Your task to perform on an android device: toggle notifications settings in the gmail app Image 0: 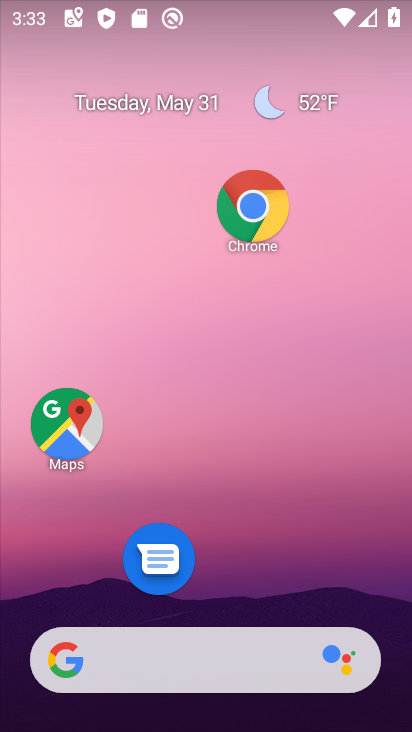
Step 0: drag from (219, 563) to (205, 140)
Your task to perform on an android device: toggle notifications settings in the gmail app Image 1: 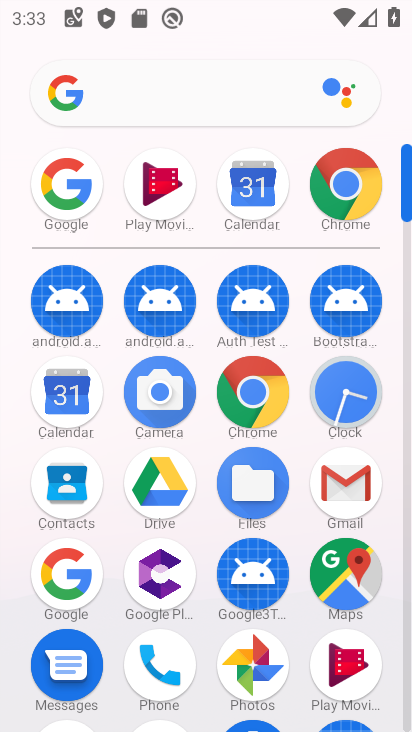
Step 1: click (343, 490)
Your task to perform on an android device: toggle notifications settings in the gmail app Image 2: 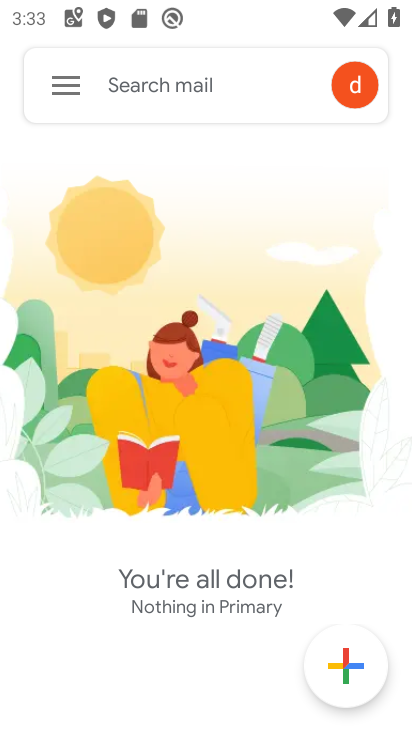
Step 2: click (56, 88)
Your task to perform on an android device: toggle notifications settings in the gmail app Image 3: 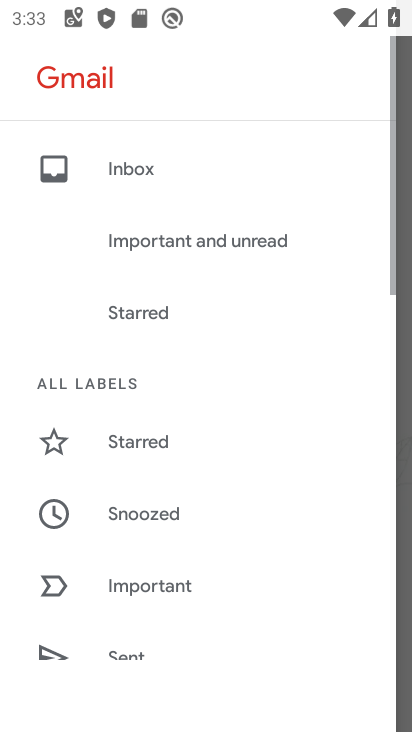
Step 3: drag from (156, 677) to (199, 260)
Your task to perform on an android device: toggle notifications settings in the gmail app Image 4: 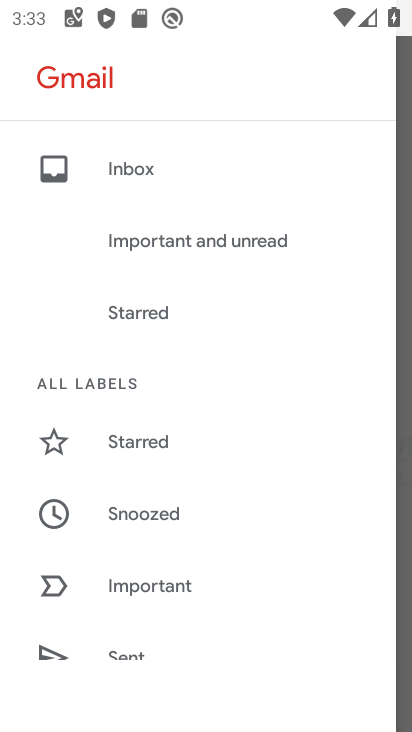
Step 4: drag from (228, 587) to (238, 232)
Your task to perform on an android device: toggle notifications settings in the gmail app Image 5: 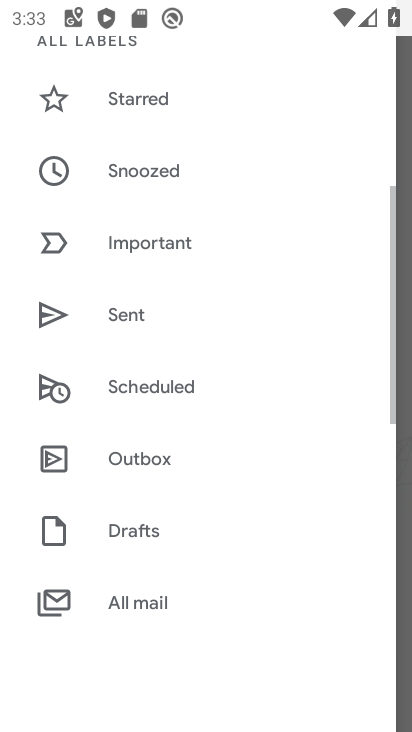
Step 5: drag from (210, 554) to (223, 249)
Your task to perform on an android device: toggle notifications settings in the gmail app Image 6: 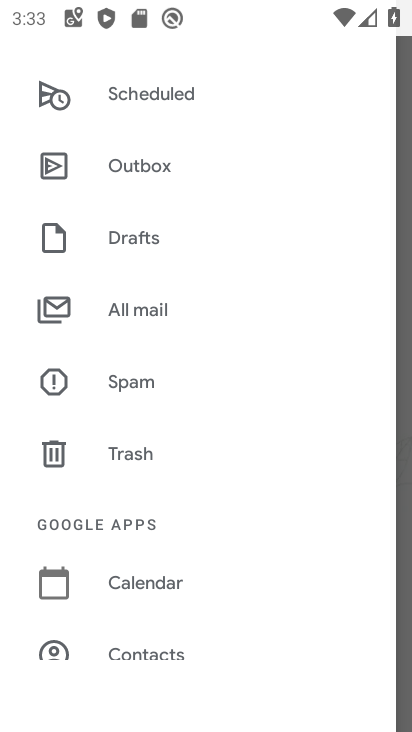
Step 6: drag from (184, 587) to (182, 210)
Your task to perform on an android device: toggle notifications settings in the gmail app Image 7: 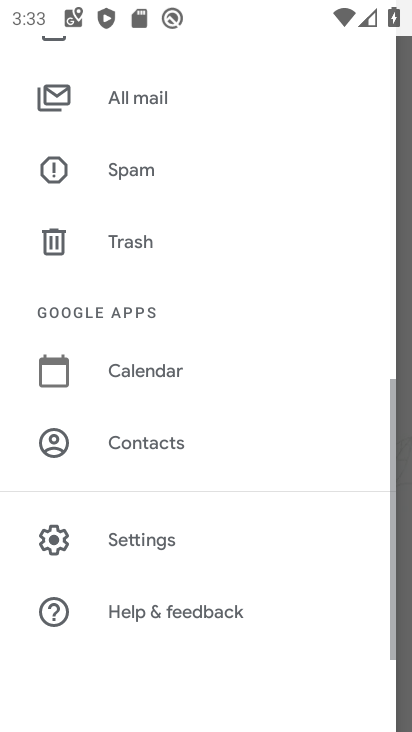
Step 7: click (150, 529)
Your task to perform on an android device: toggle notifications settings in the gmail app Image 8: 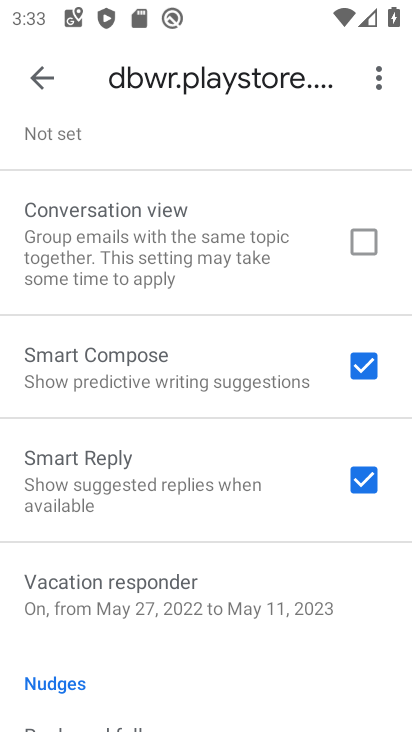
Step 8: drag from (159, 587) to (160, 254)
Your task to perform on an android device: toggle notifications settings in the gmail app Image 9: 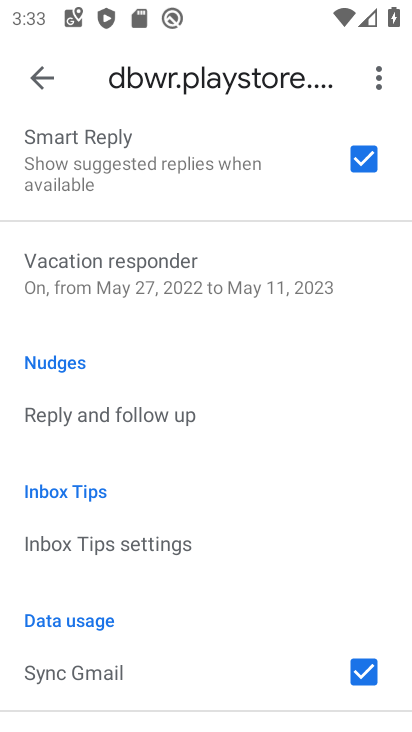
Step 9: drag from (137, 476) to (124, 627)
Your task to perform on an android device: toggle notifications settings in the gmail app Image 10: 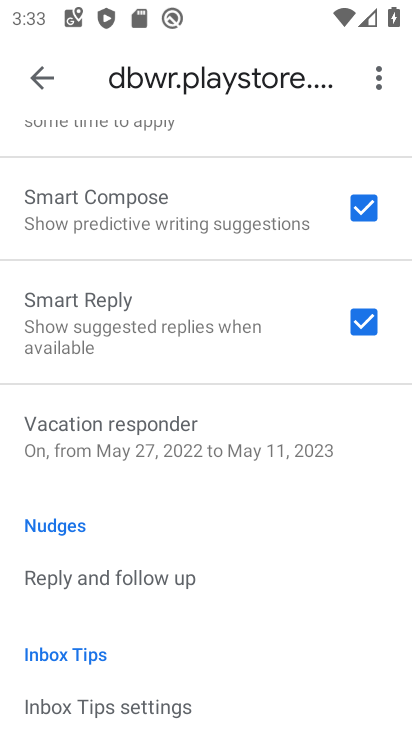
Step 10: drag from (164, 298) to (162, 562)
Your task to perform on an android device: toggle notifications settings in the gmail app Image 11: 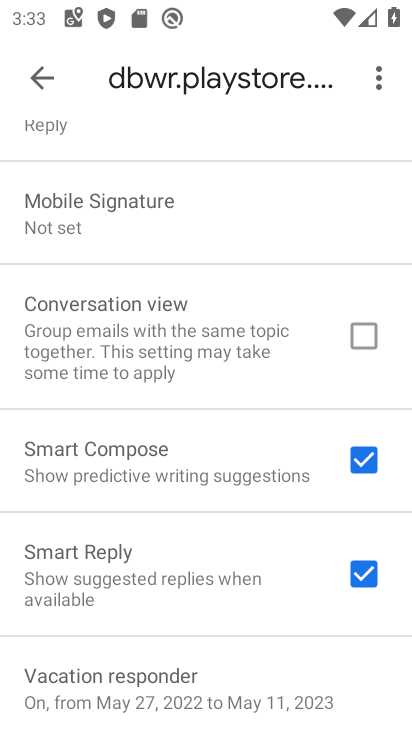
Step 11: drag from (164, 209) to (164, 500)
Your task to perform on an android device: toggle notifications settings in the gmail app Image 12: 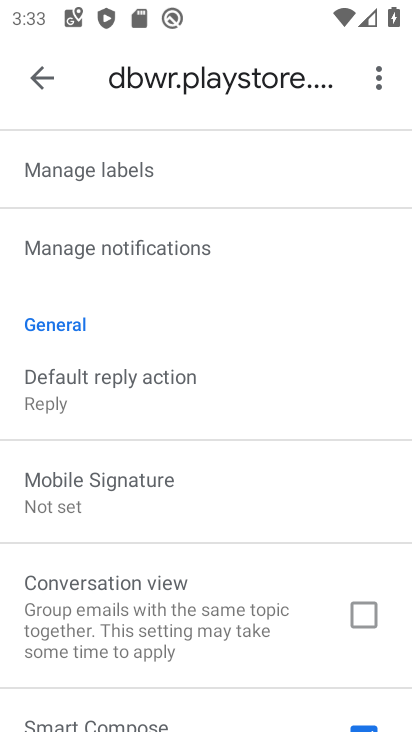
Step 12: click (161, 248)
Your task to perform on an android device: toggle notifications settings in the gmail app Image 13: 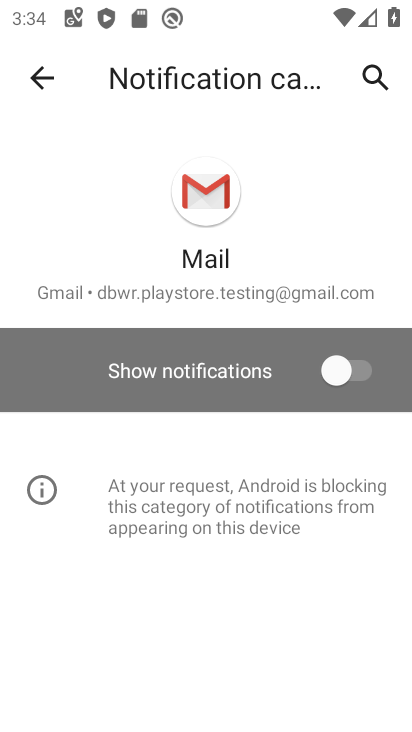
Step 13: click (361, 369)
Your task to perform on an android device: toggle notifications settings in the gmail app Image 14: 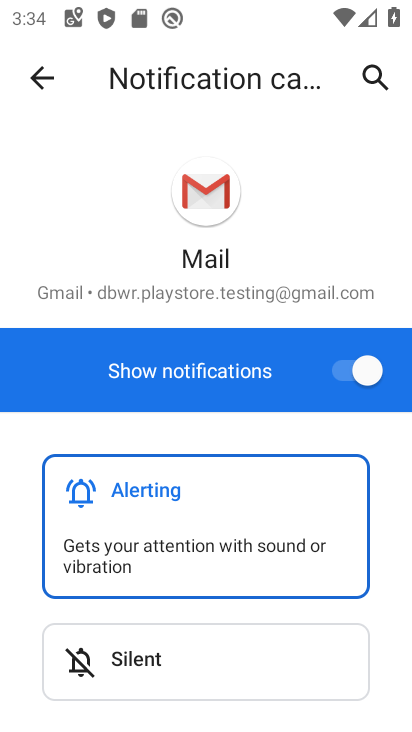
Step 14: task complete